Your task to perform on an android device: add a contact in the contacts app Image 0: 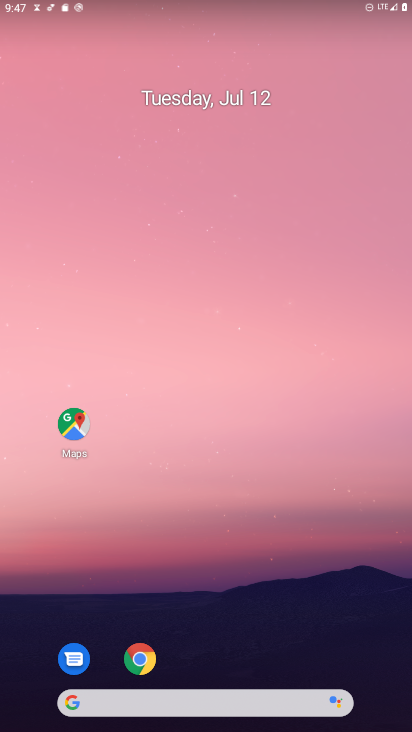
Step 0: drag from (182, 704) to (239, 275)
Your task to perform on an android device: add a contact in the contacts app Image 1: 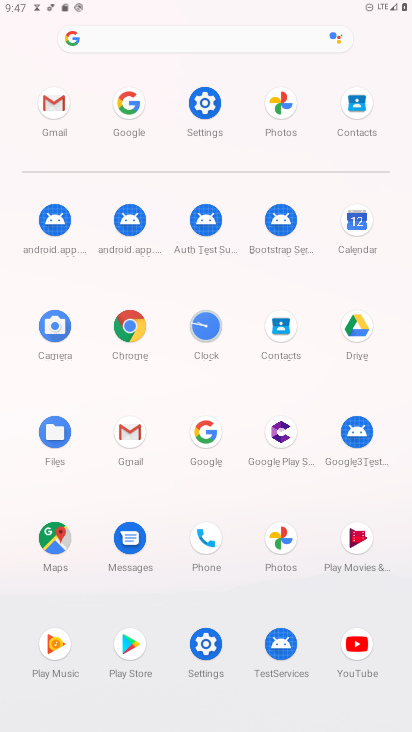
Step 1: click (277, 328)
Your task to perform on an android device: add a contact in the contacts app Image 2: 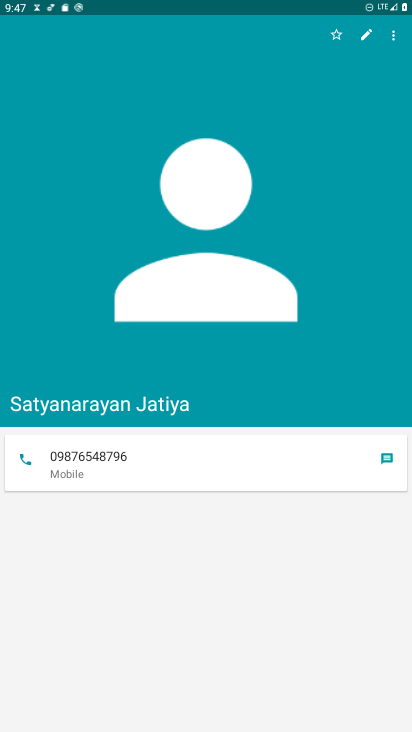
Step 2: press back button
Your task to perform on an android device: add a contact in the contacts app Image 3: 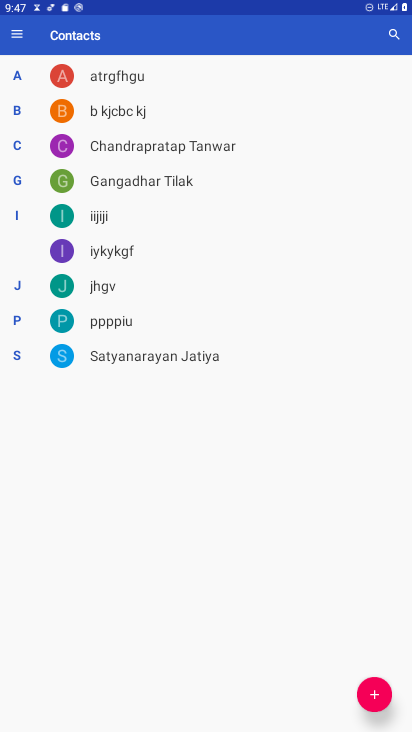
Step 3: click (380, 700)
Your task to perform on an android device: add a contact in the contacts app Image 4: 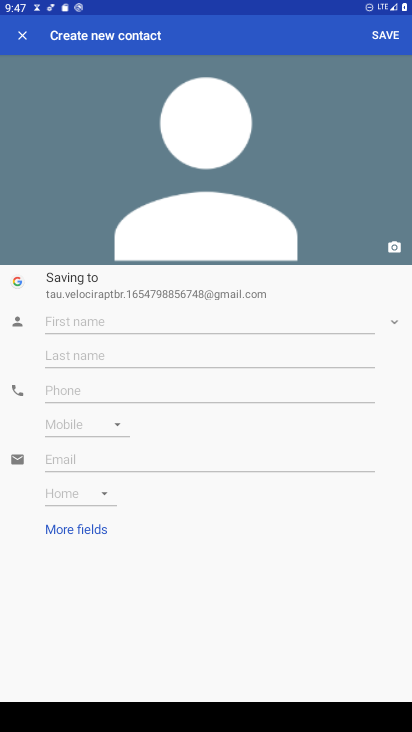
Step 4: click (134, 325)
Your task to perform on an android device: add a contact in the contacts app Image 5: 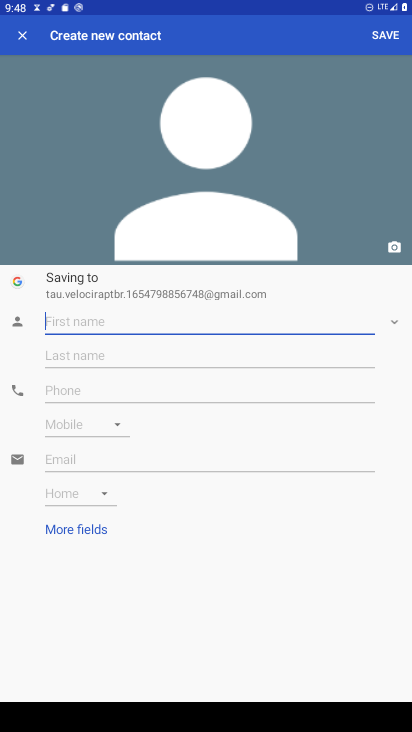
Step 5: type "Chandrakanta"
Your task to perform on an android device: add a contact in the contacts app Image 6: 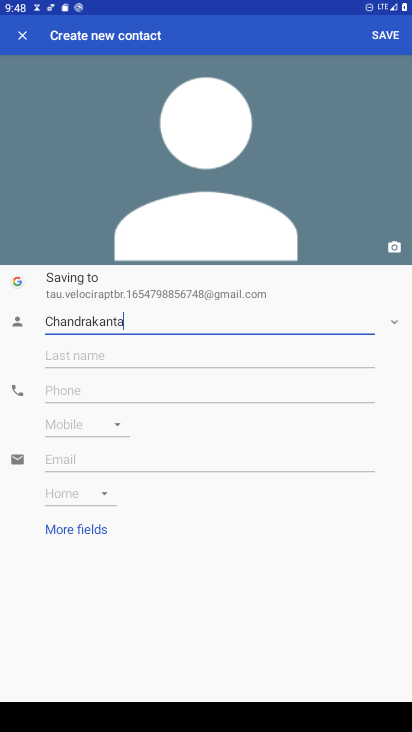
Step 6: click (151, 354)
Your task to perform on an android device: add a contact in the contacts app Image 7: 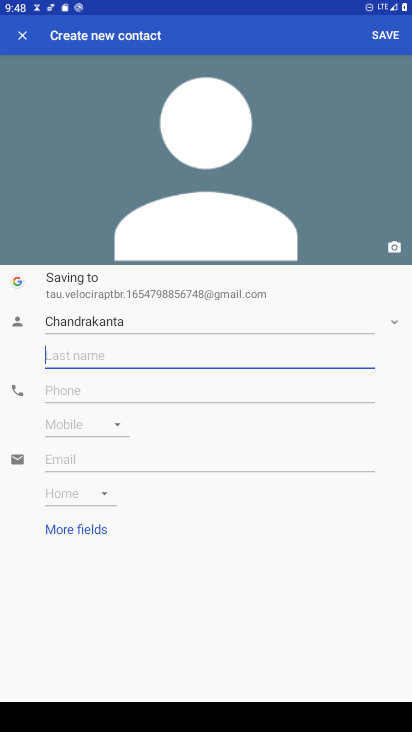
Step 7: type "kahani"
Your task to perform on an android device: add a contact in the contacts app Image 8: 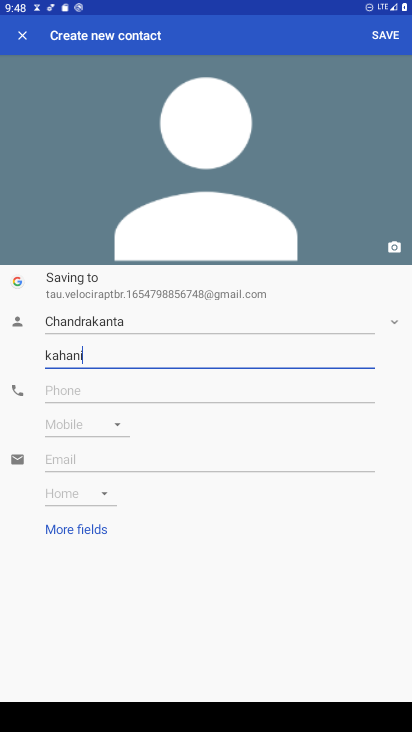
Step 8: click (107, 405)
Your task to perform on an android device: add a contact in the contacts app Image 9: 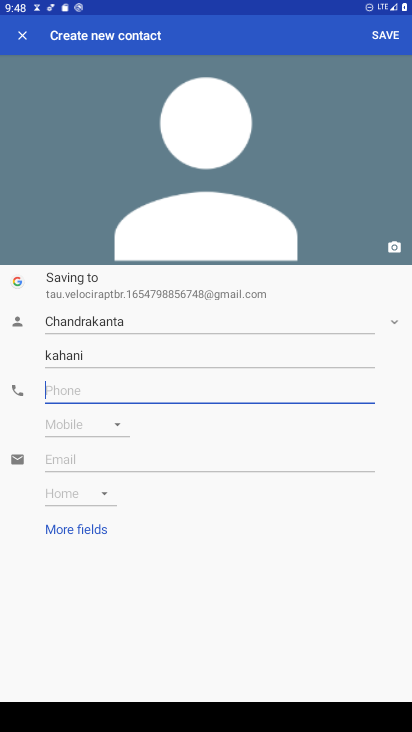
Step 9: type "09988776655"
Your task to perform on an android device: add a contact in the contacts app Image 10: 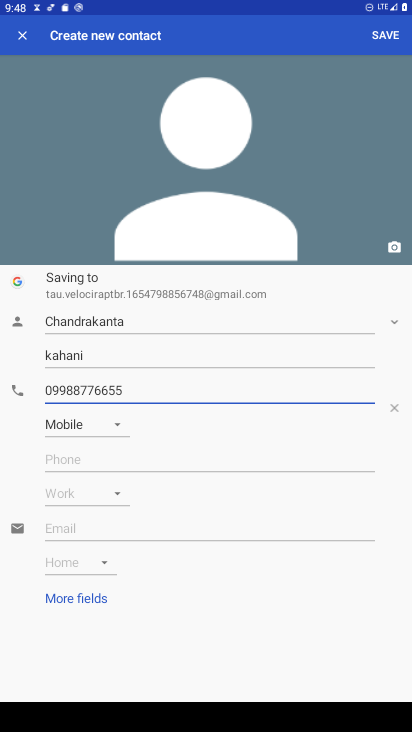
Step 10: click (391, 36)
Your task to perform on an android device: add a contact in the contacts app Image 11: 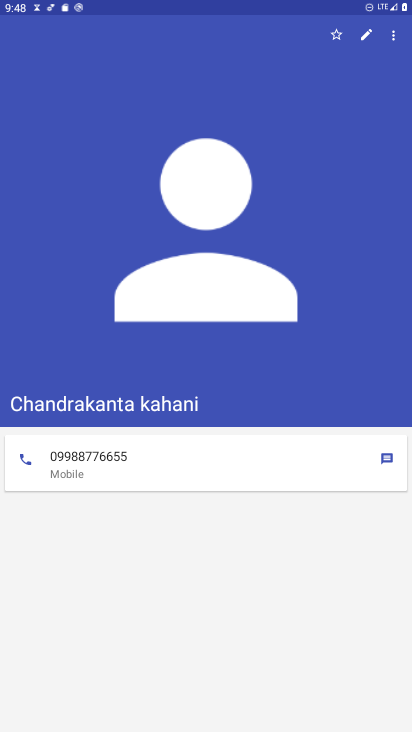
Step 11: task complete